Your task to perform on an android device: Open Amazon Image 0: 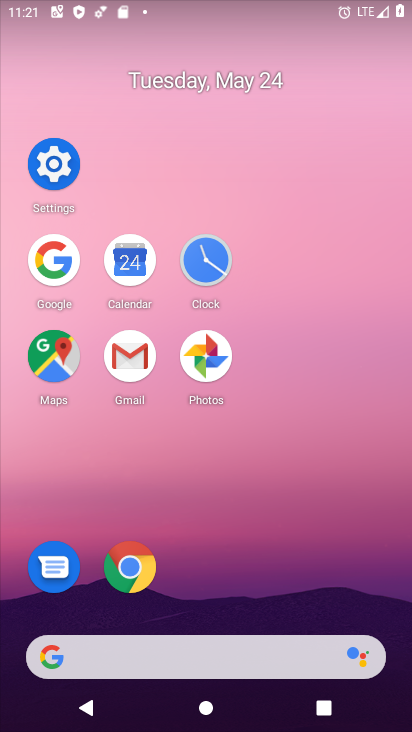
Step 0: click (138, 572)
Your task to perform on an android device: Open Amazon Image 1: 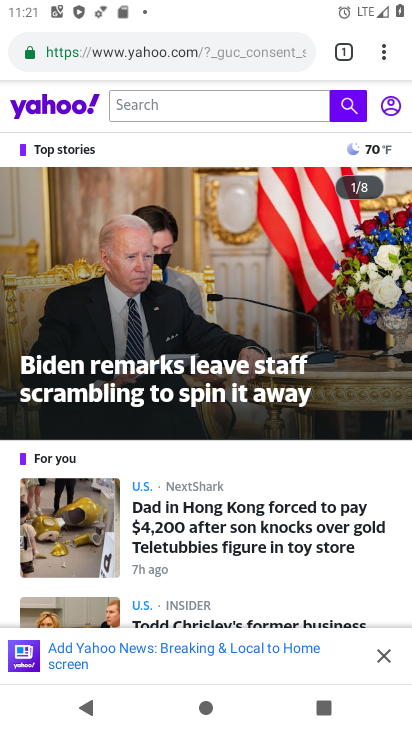
Step 1: click (349, 53)
Your task to perform on an android device: Open Amazon Image 2: 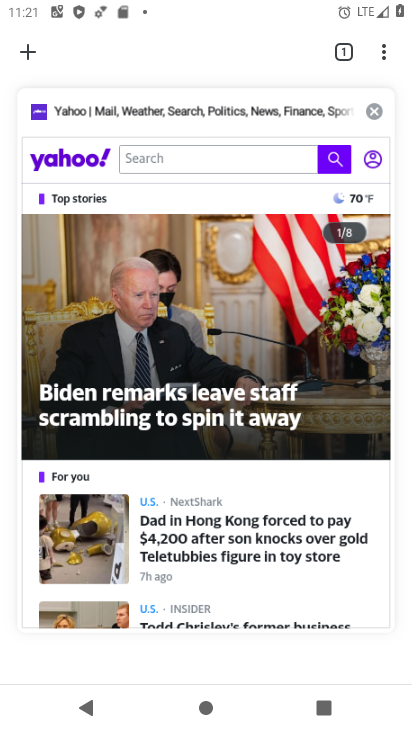
Step 2: click (26, 51)
Your task to perform on an android device: Open Amazon Image 3: 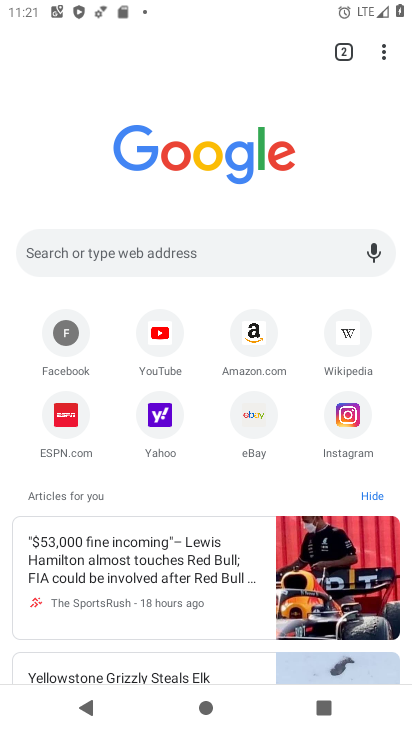
Step 3: click (254, 329)
Your task to perform on an android device: Open Amazon Image 4: 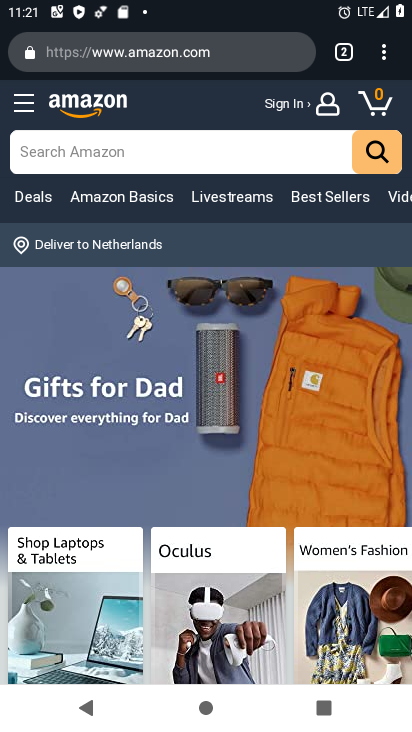
Step 4: task complete